Your task to perform on an android device: Open settings on Google Maps Image 0: 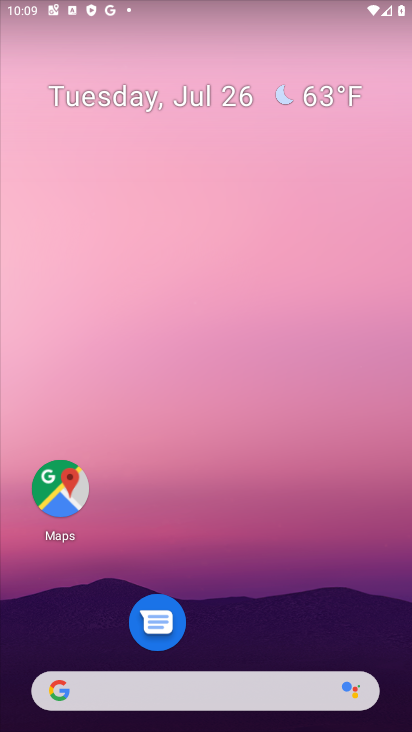
Step 0: drag from (336, 564) to (67, 454)
Your task to perform on an android device: Open settings on Google Maps Image 1: 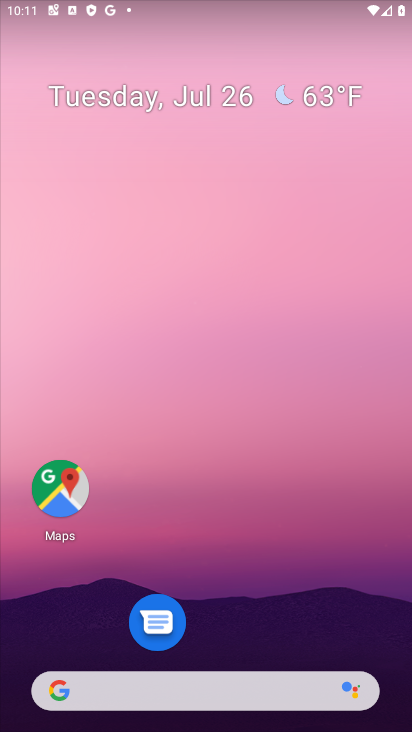
Step 1: drag from (282, 522) to (40, 0)
Your task to perform on an android device: Open settings on Google Maps Image 2: 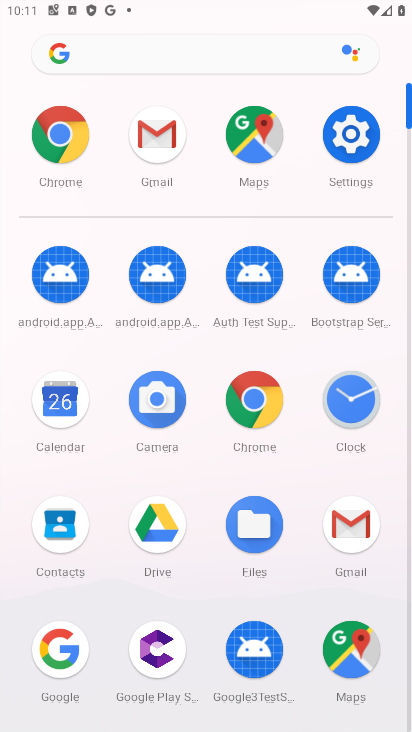
Step 2: click (240, 146)
Your task to perform on an android device: Open settings on Google Maps Image 3: 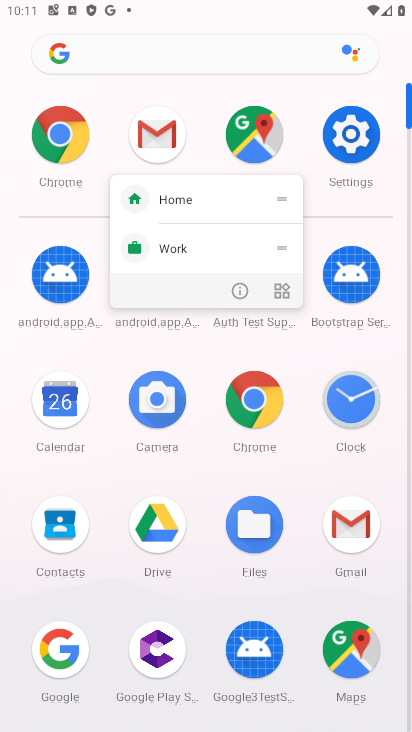
Step 3: click (260, 151)
Your task to perform on an android device: Open settings on Google Maps Image 4: 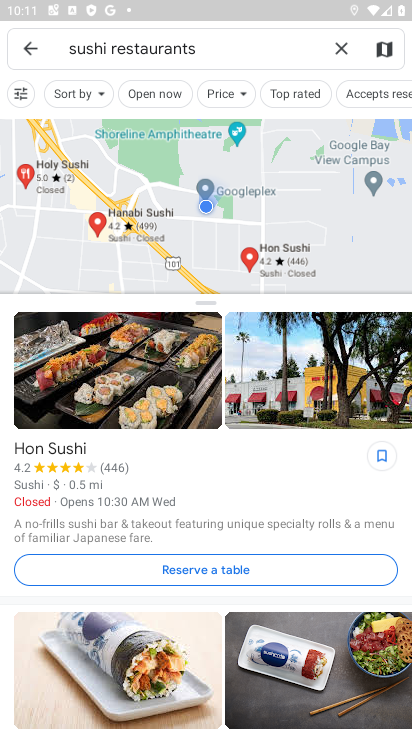
Step 4: task complete